Your task to perform on an android device: Open calendar and show me the second week of next month Image 0: 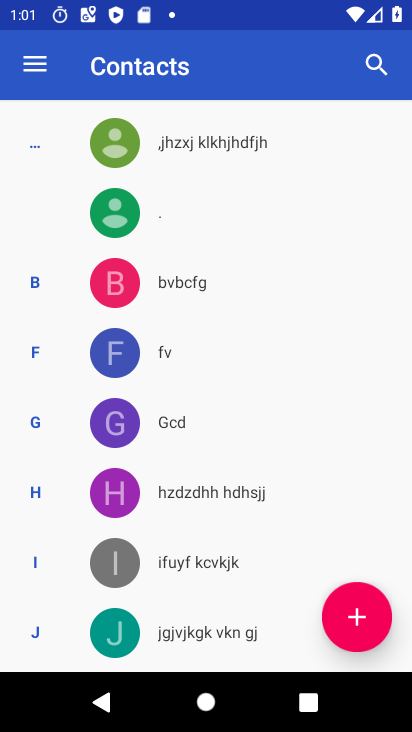
Step 0: press home button
Your task to perform on an android device: Open calendar and show me the second week of next month Image 1: 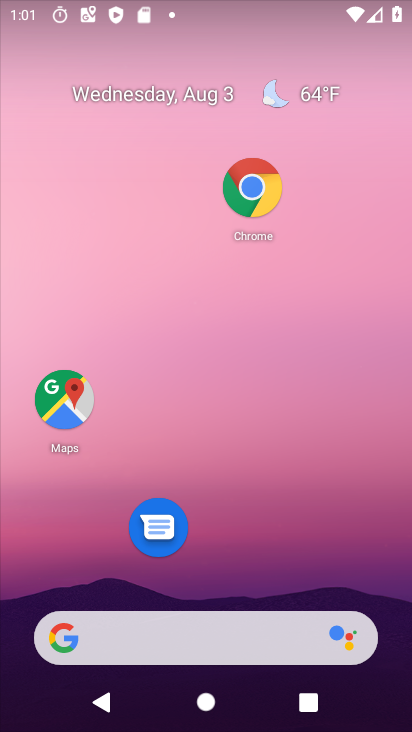
Step 1: drag from (225, 444) to (224, 121)
Your task to perform on an android device: Open calendar and show me the second week of next month Image 2: 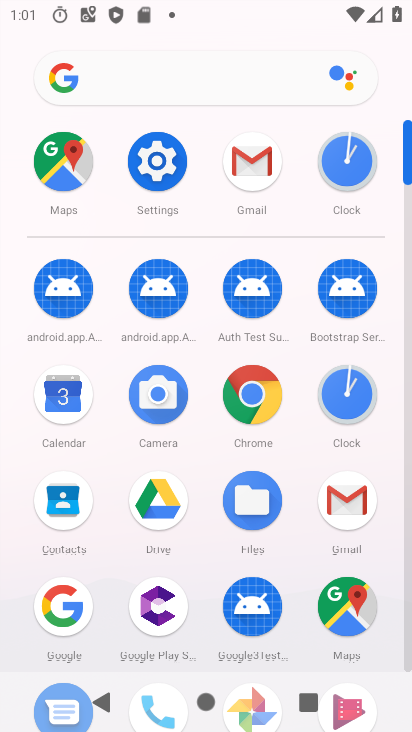
Step 2: click (56, 404)
Your task to perform on an android device: Open calendar and show me the second week of next month Image 3: 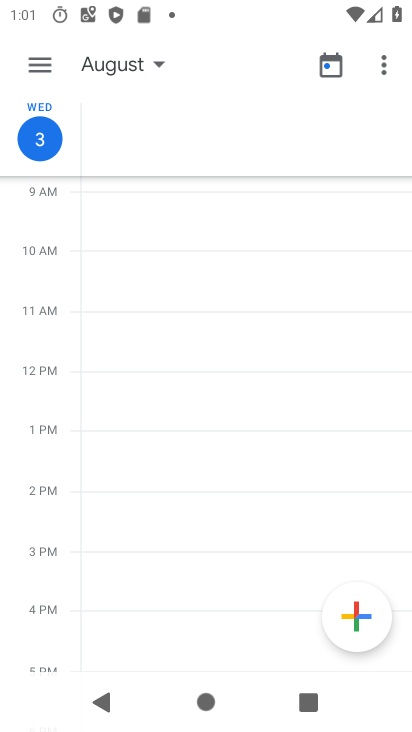
Step 3: click (36, 74)
Your task to perform on an android device: Open calendar and show me the second week of next month Image 4: 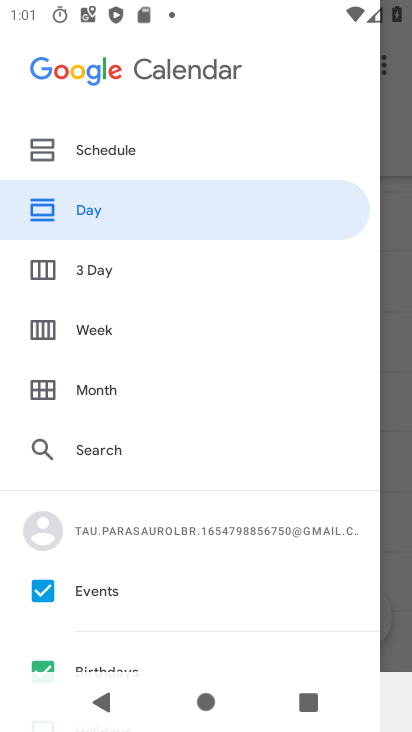
Step 4: click (110, 331)
Your task to perform on an android device: Open calendar and show me the second week of next month Image 5: 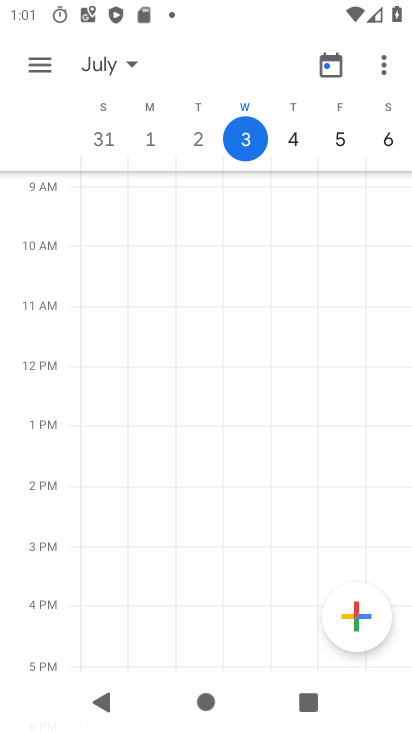
Step 5: task complete